Your task to perform on an android device: Set the phone to "Do not disturb". Image 0: 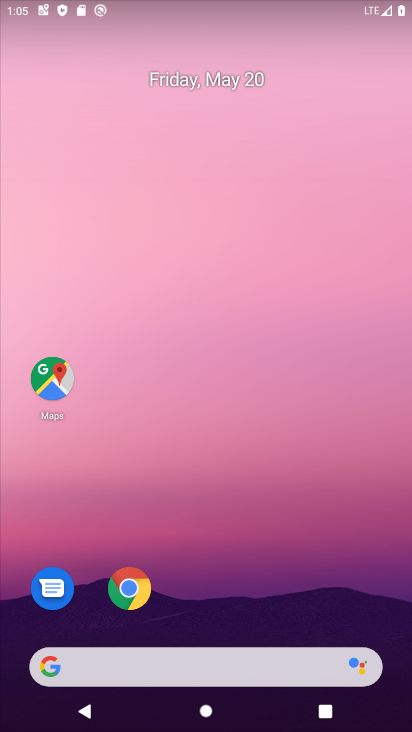
Step 0: drag from (390, 641) to (310, 54)
Your task to perform on an android device: Set the phone to "Do not disturb". Image 1: 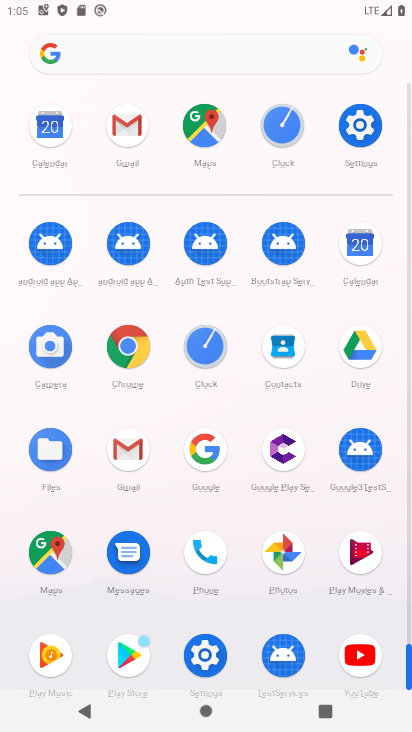
Step 1: click (205, 654)
Your task to perform on an android device: Set the phone to "Do not disturb". Image 2: 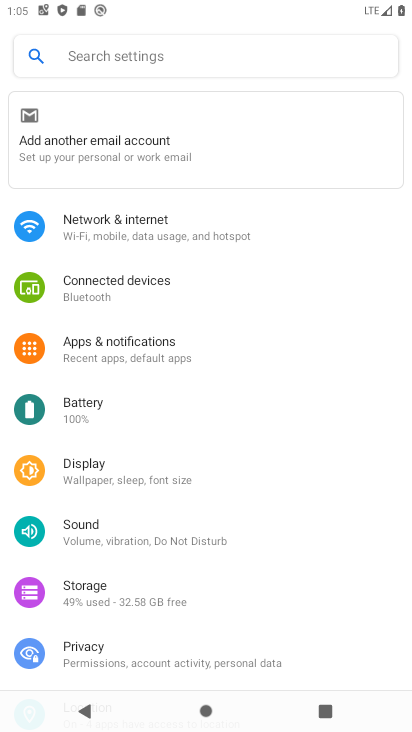
Step 2: drag from (276, 601) to (262, 162)
Your task to perform on an android device: Set the phone to "Do not disturb". Image 3: 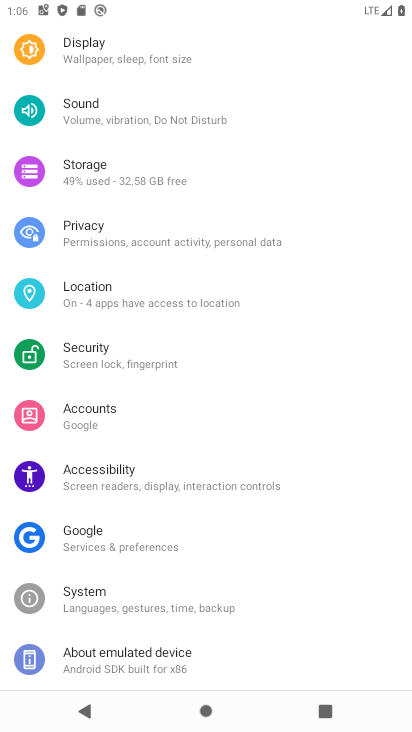
Step 3: click (104, 109)
Your task to perform on an android device: Set the phone to "Do not disturb". Image 4: 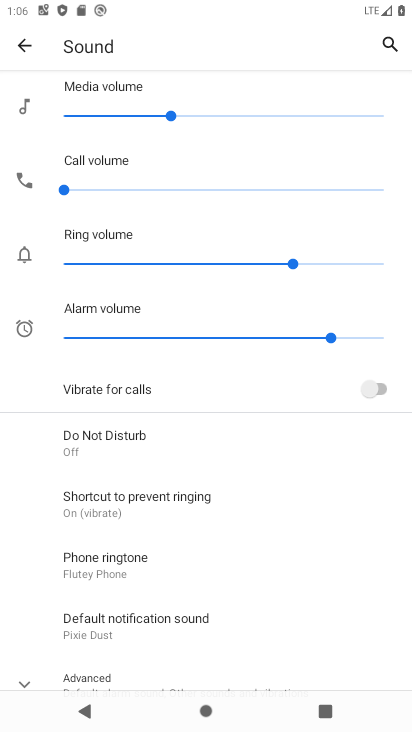
Step 4: drag from (225, 615) to (227, 296)
Your task to perform on an android device: Set the phone to "Do not disturb". Image 5: 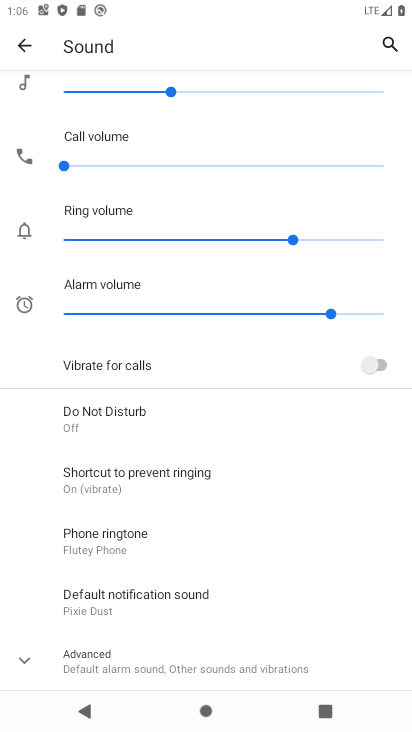
Step 5: click (97, 406)
Your task to perform on an android device: Set the phone to "Do not disturb". Image 6: 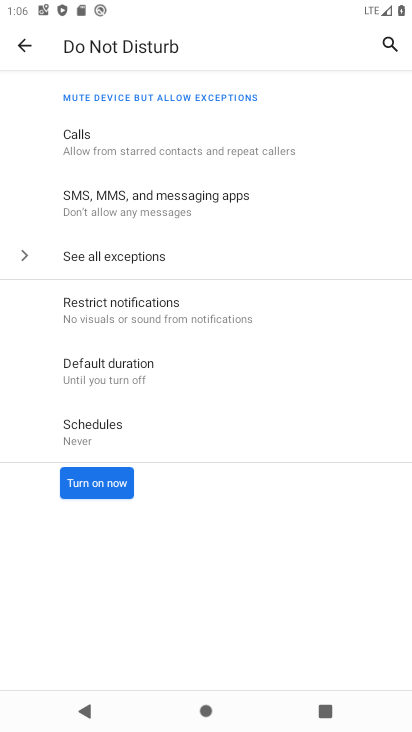
Step 6: click (90, 490)
Your task to perform on an android device: Set the phone to "Do not disturb". Image 7: 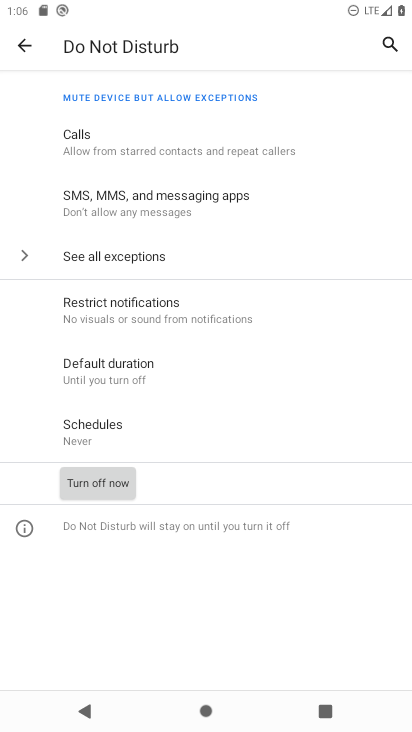
Step 7: task complete